Your task to perform on an android device: open a bookmark in the chrome app Image 0: 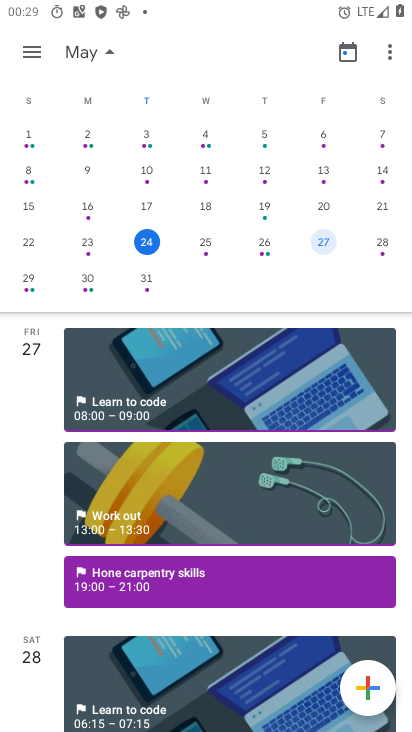
Step 0: press home button
Your task to perform on an android device: open a bookmark in the chrome app Image 1: 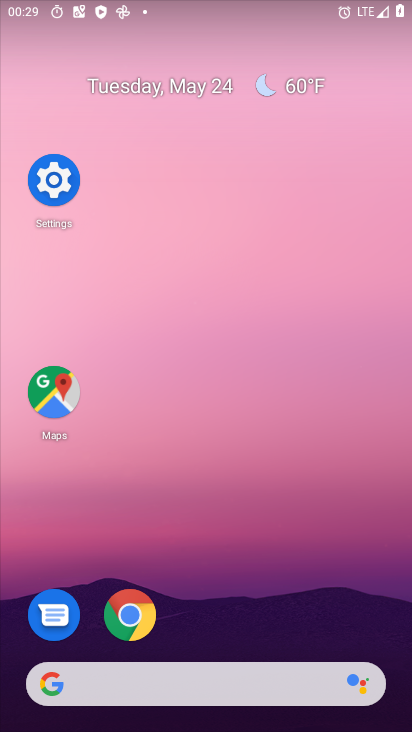
Step 1: click (126, 620)
Your task to perform on an android device: open a bookmark in the chrome app Image 2: 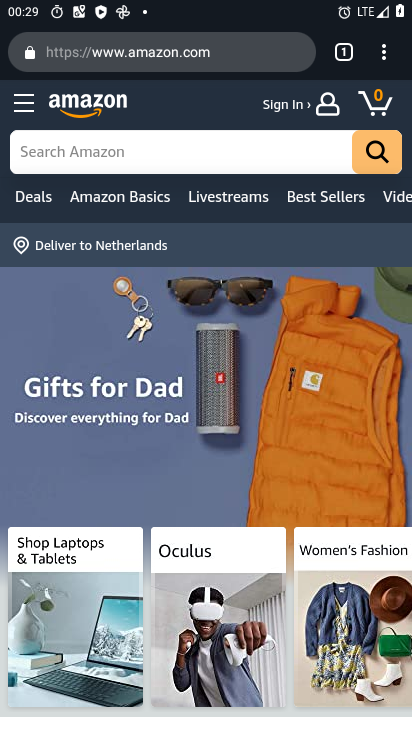
Step 2: click (376, 55)
Your task to perform on an android device: open a bookmark in the chrome app Image 3: 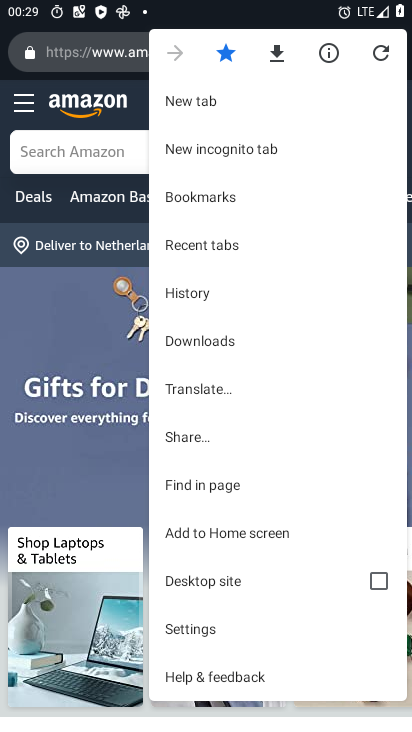
Step 3: click (215, 200)
Your task to perform on an android device: open a bookmark in the chrome app Image 4: 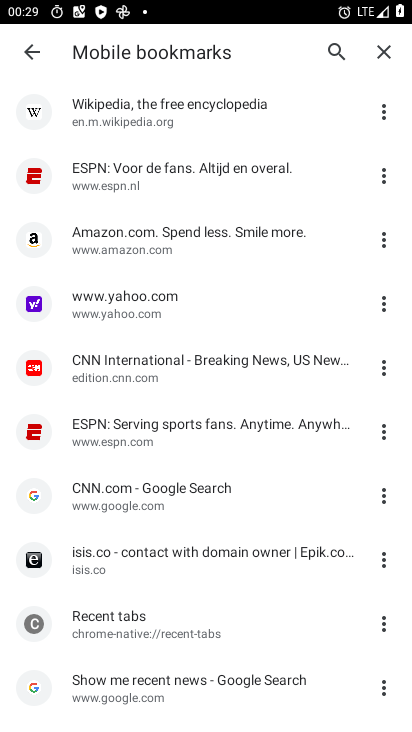
Step 4: click (160, 312)
Your task to perform on an android device: open a bookmark in the chrome app Image 5: 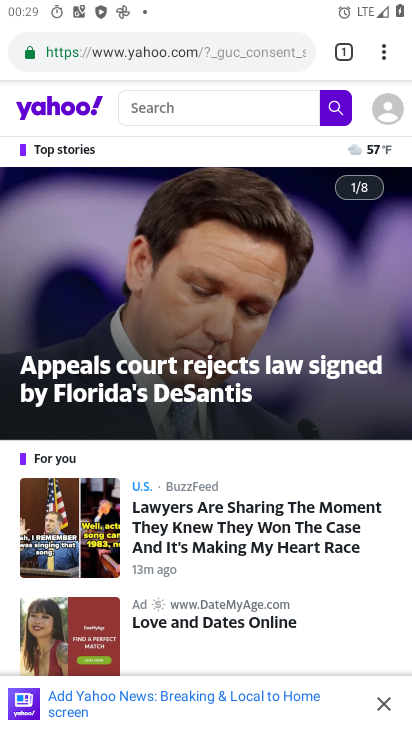
Step 5: task complete